Your task to perform on an android device: Open the clock Image 0: 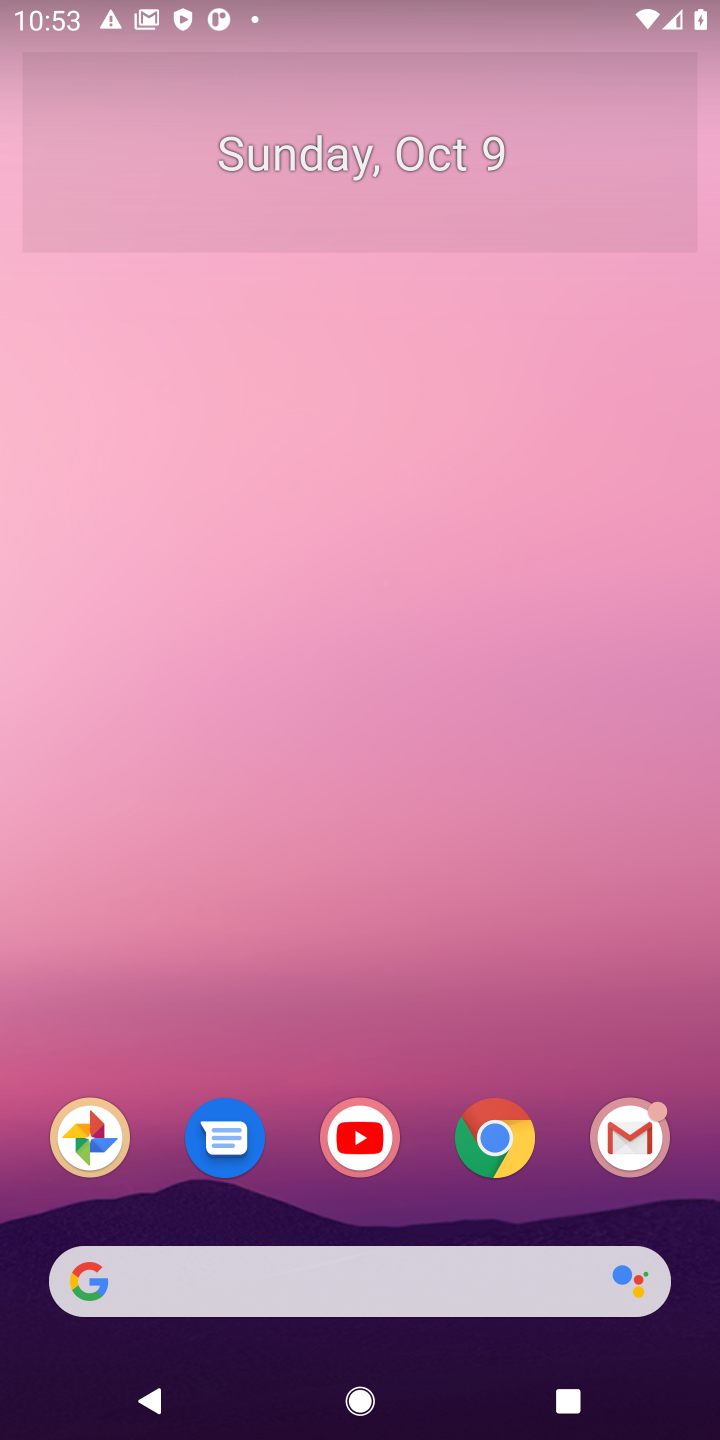
Step 0: press home button
Your task to perform on an android device: Open the clock Image 1: 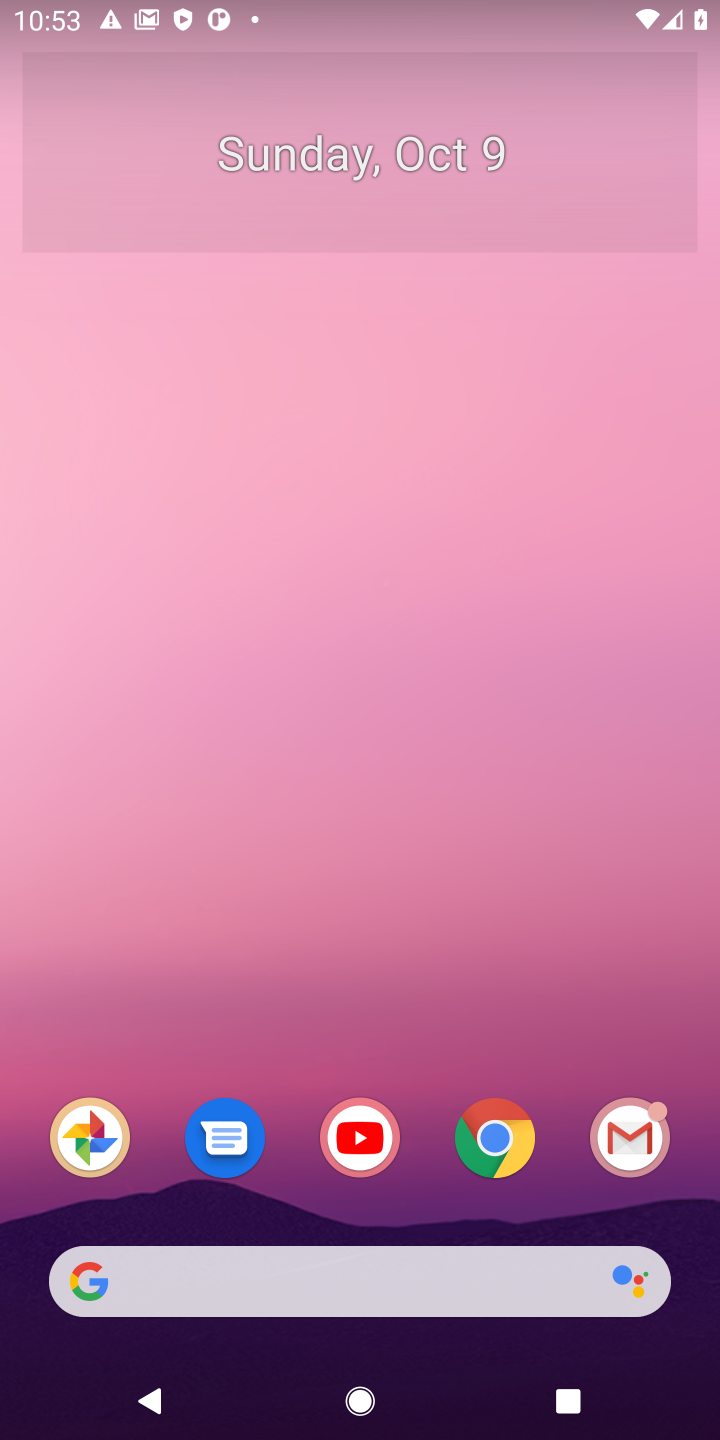
Step 1: drag from (304, 1269) to (388, 348)
Your task to perform on an android device: Open the clock Image 2: 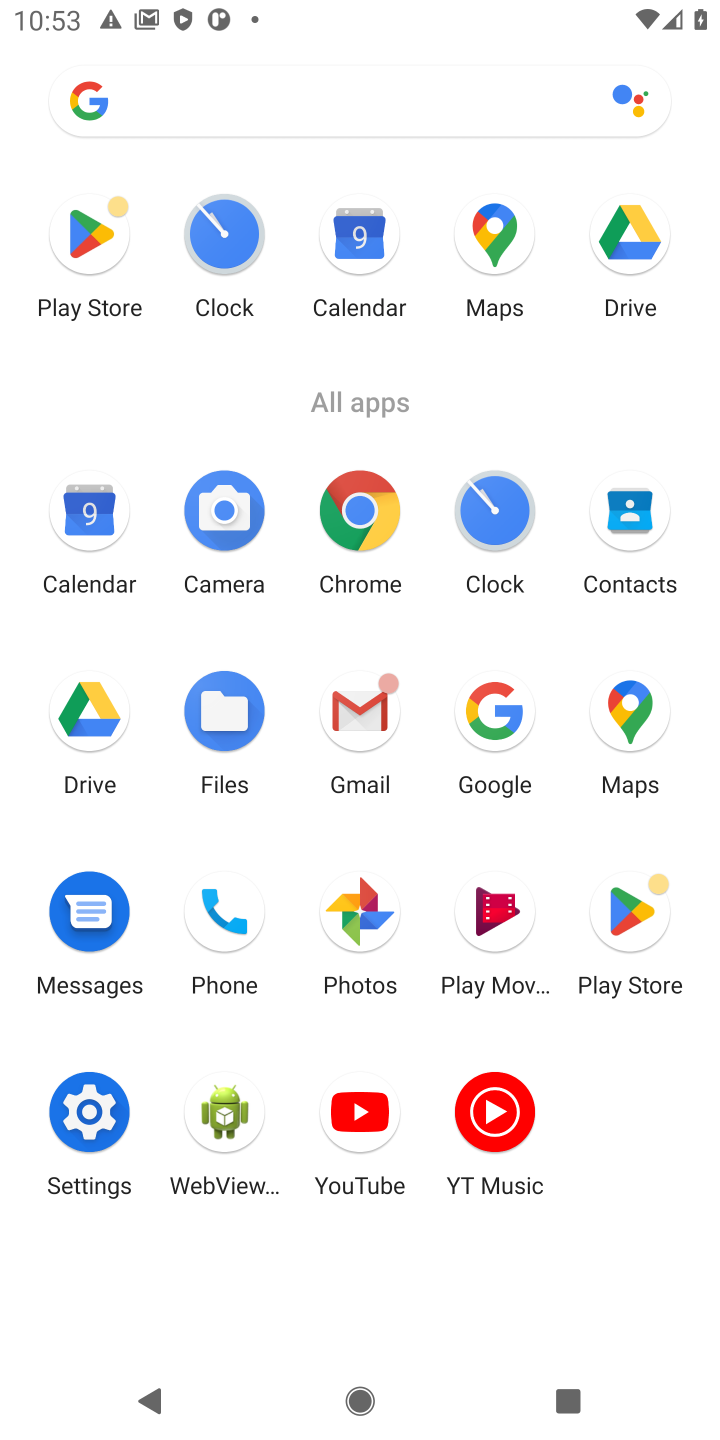
Step 2: click (492, 542)
Your task to perform on an android device: Open the clock Image 3: 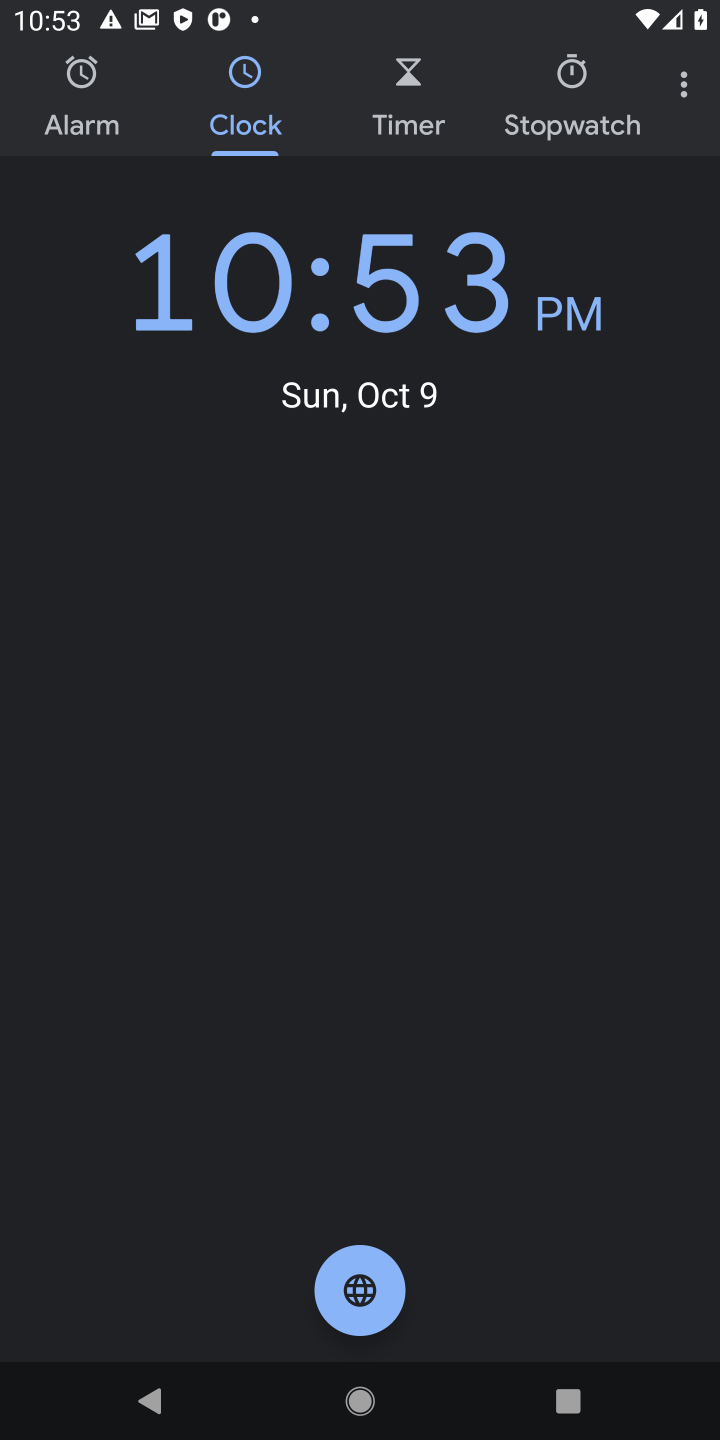
Step 3: task complete